Your task to perform on an android device: Open calendar and show me the fourth week of next month Image 0: 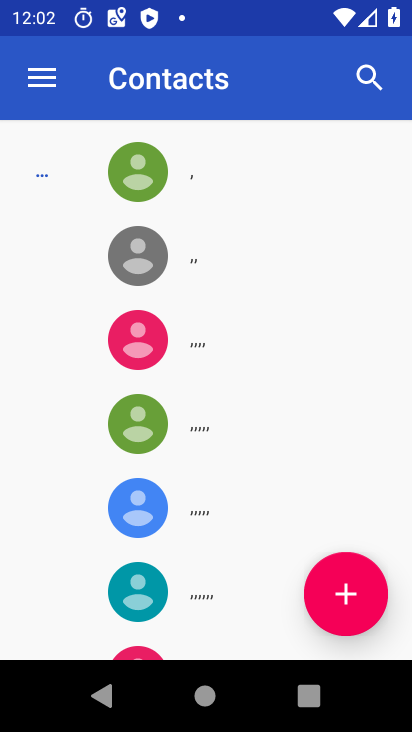
Step 0: press home button
Your task to perform on an android device: Open calendar and show me the fourth week of next month Image 1: 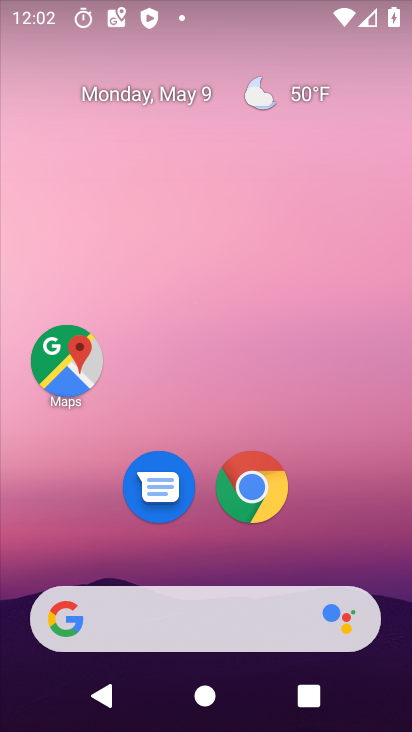
Step 1: drag from (312, 511) to (278, 162)
Your task to perform on an android device: Open calendar and show me the fourth week of next month Image 2: 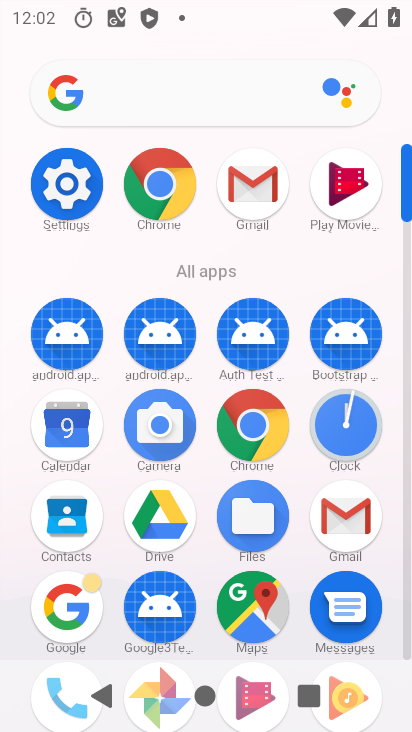
Step 2: click (49, 444)
Your task to perform on an android device: Open calendar and show me the fourth week of next month Image 3: 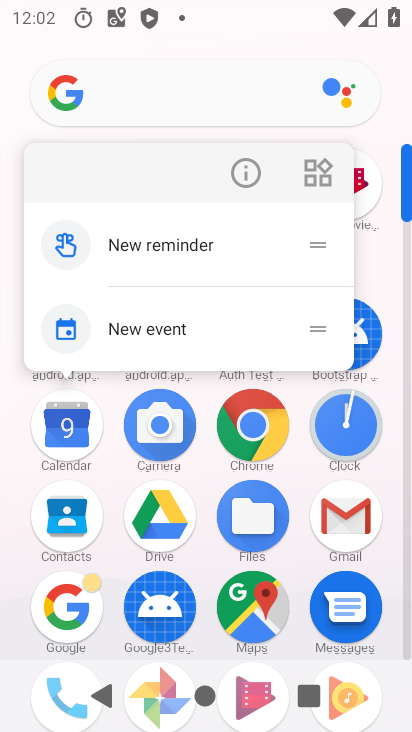
Step 3: click (66, 434)
Your task to perform on an android device: Open calendar and show me the fourth week of next month Image 4: 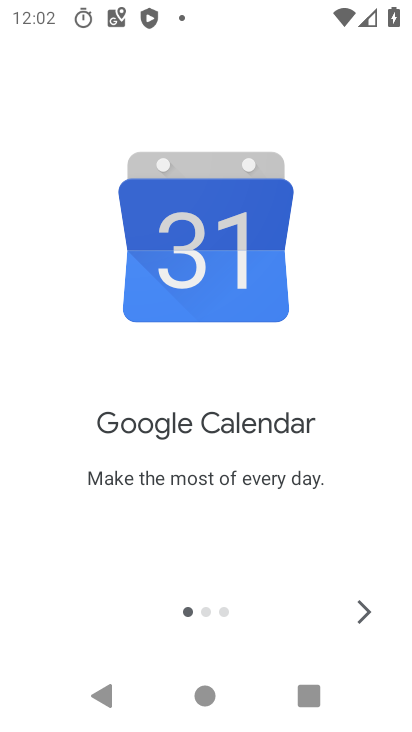
Step 4: click (362, 627)
Your task to perform on an android device: Open calendar and show me the fourth week of next month Image 5: 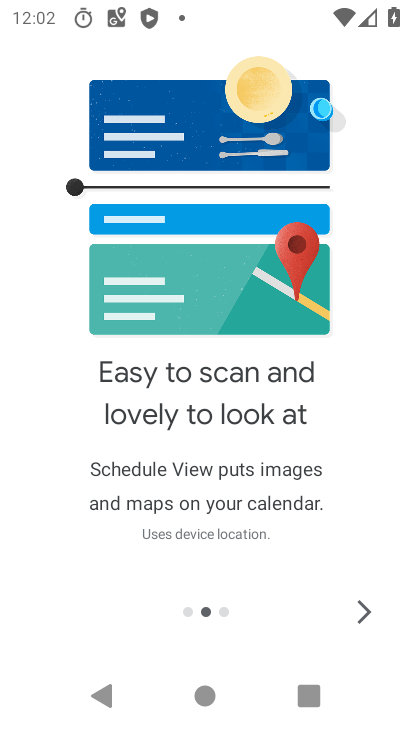
Step 5: click (362, 627)
Your task to perform on an android device: Open calendar and show me the fourth week of next month Image 6: 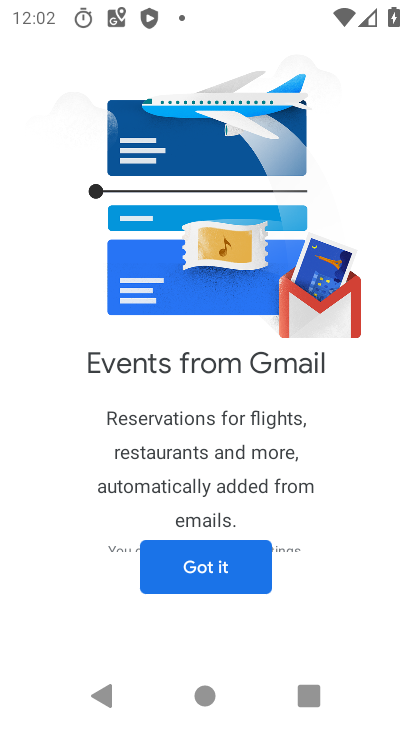
Step 6: click (362, 627)
Your task to perform on an android device: Open calendar and show me the fourth week of next month Image 7: 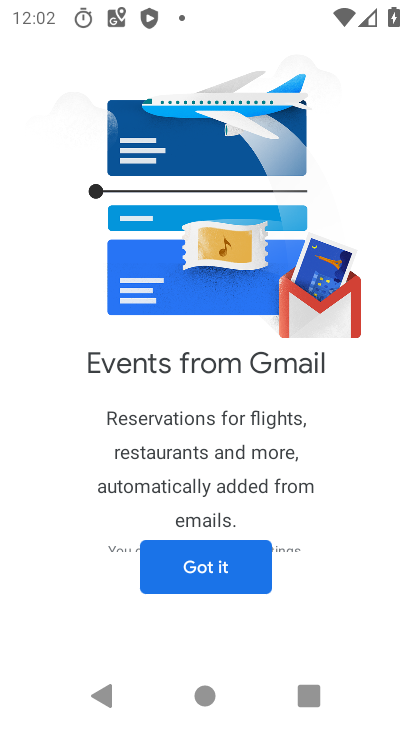
Step 7: click (248, 576)
Your task to perform on an android device: Open calendar and show me the fourth week of next month Image 8: 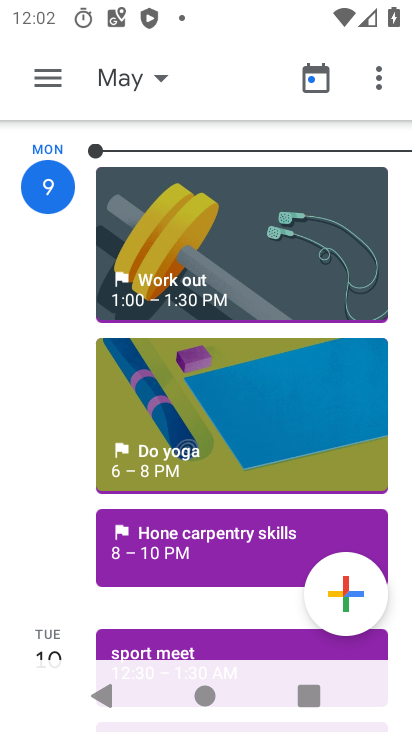
Step 8: click (133, 82)
Your task to perform on an android device: Open calendar and show me the fourth week of next month Image 9: 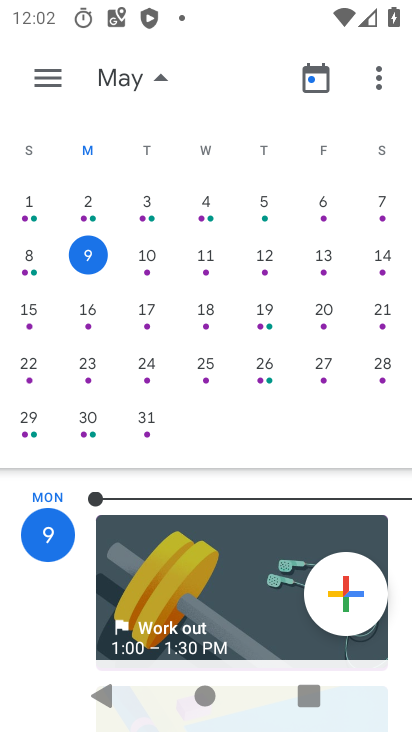
Step 9: drag from (371, 351) to (0, 363)
Your task to perform on an android device: Open calendar and show me the fourth week of next month Image 10: 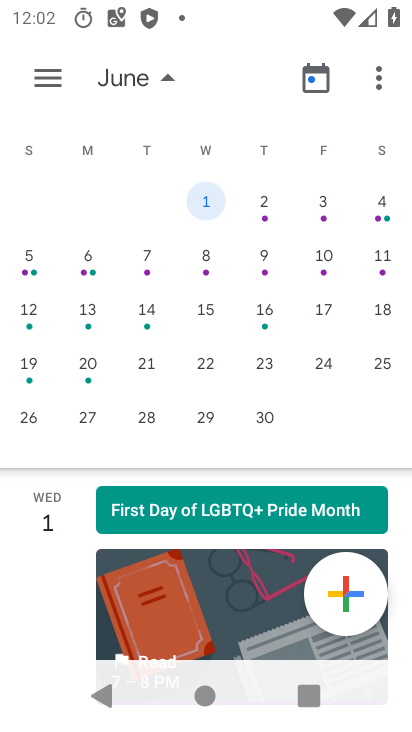
Step 10: click (26, 365)
Your task to perform on an android device: Open calendar and show me the fourth week of next month Image 11: 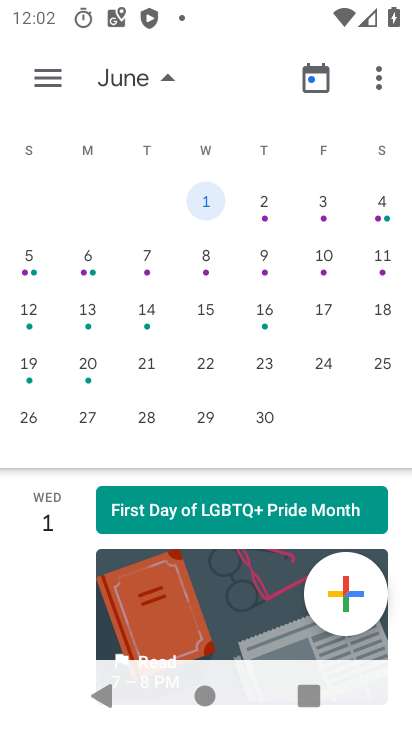
Step 11: click (93, 369)
Your task to perform on an android device: Open calendar and show me the fourth week of next month Image 12: 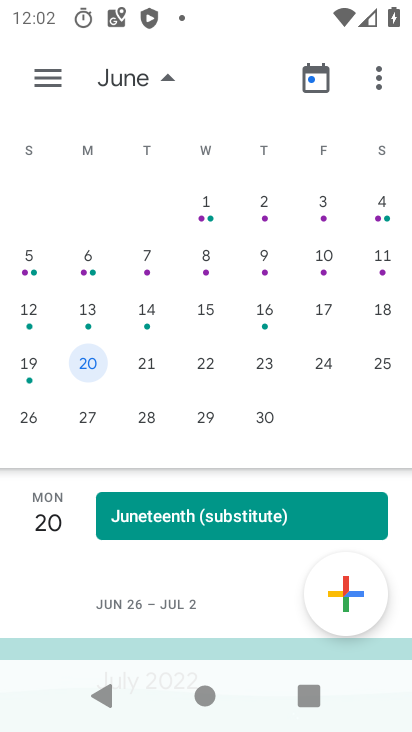
Step 12: click (141, 374)
Your task to perform on an android device: Open calendar and show me the fourth week of next month Image 13: 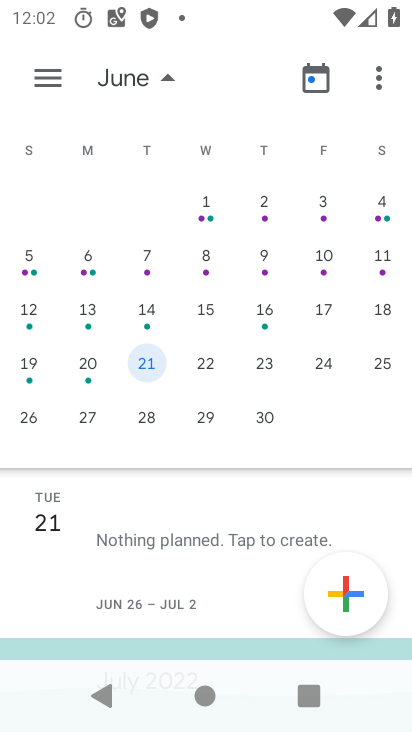
Step 13: click (220, 376)
Your task to perform on an android device: Open calendar and show me the fourth week of next month Image 14: 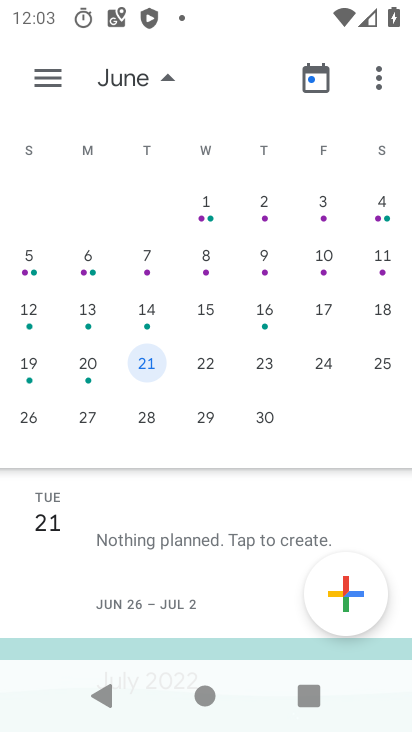
Step 14: click (271, 372)
Your task to perform on an android device: Open calendar and show me the fourth week of next month Image 15: 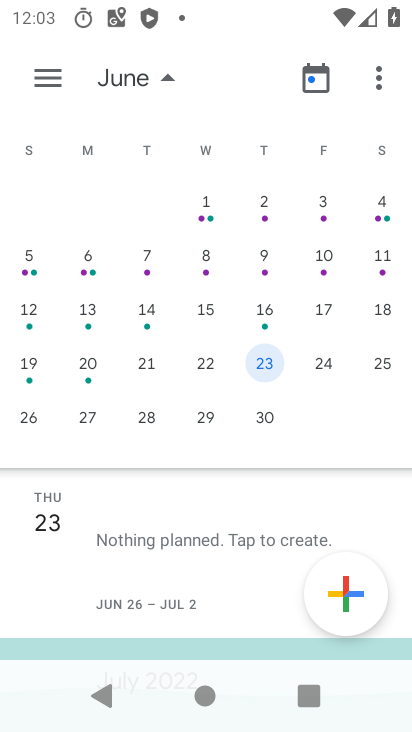
Step 15: click (330, 367)
Your task to perform on an android device: Open calendar and show me the fourth week of next month Image 16: 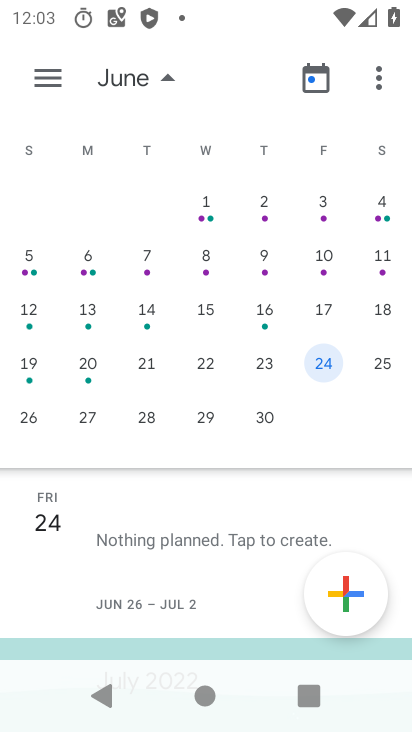
Step 16: click (388, 368)
Your task to perform on an android device: Open calendar and show me the fourth week of next month Image 17: 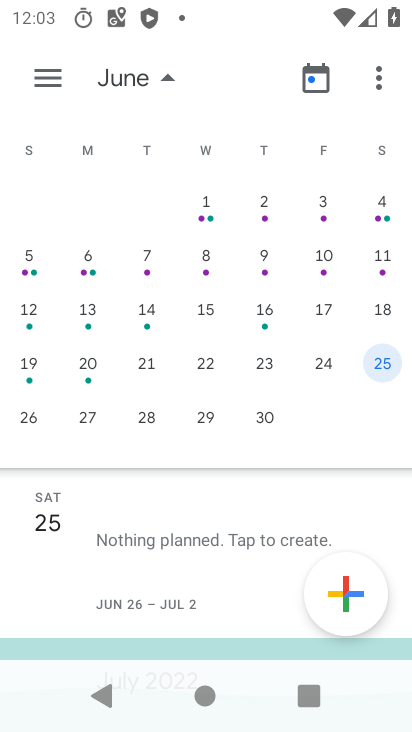
Step 17: task complete